Your task to perform on an android device: change the clock display to digital Image 0: 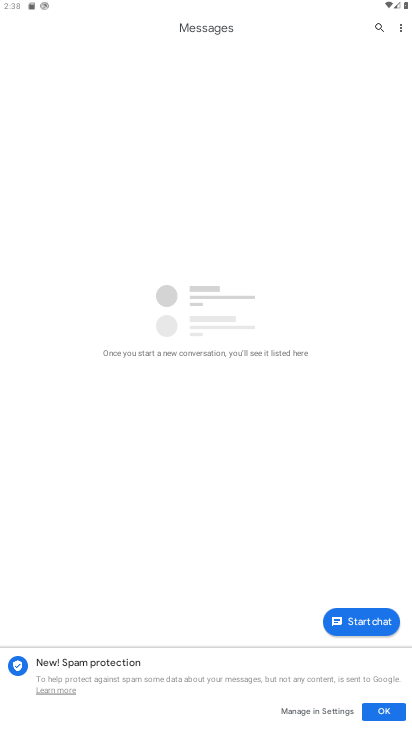
Step 0: press home button
Your task to perform on an android device: change the clock display to digital Image 1: 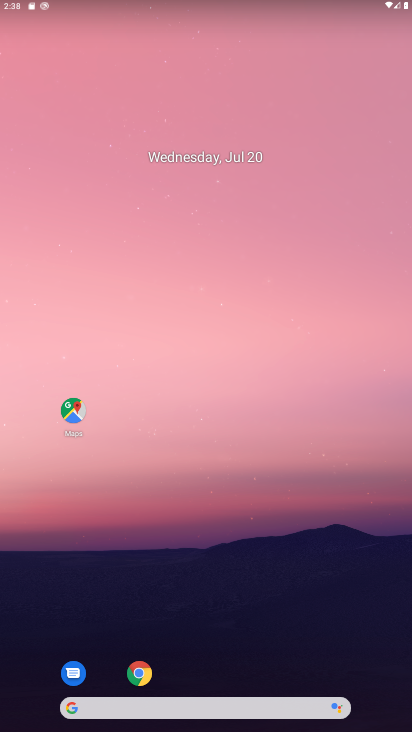
Step 1: drag from (217, 659) to (239, 43)
Your task to perform on an android device: change the clock display to digital Image 2: 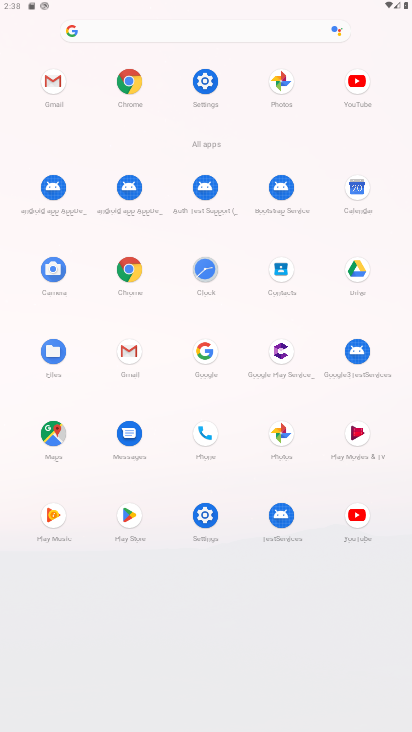
Step 2: click (207, 276)
Your task to perform on an android device: change the clock display to digital Image 3: 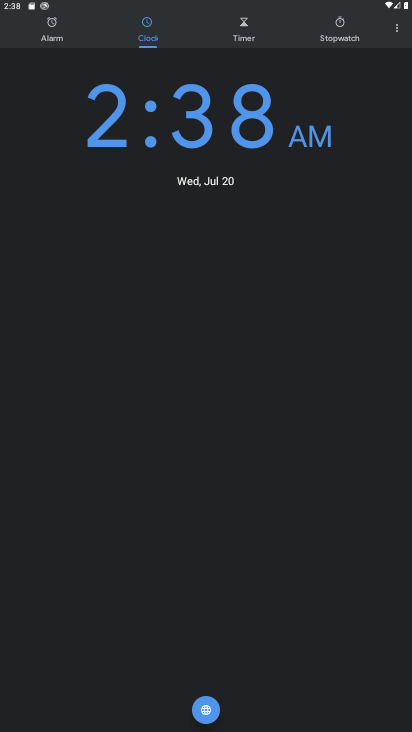
Step 3: click (393, 30)
Your task to perform on an android device: change the clock display to digital Image 4: 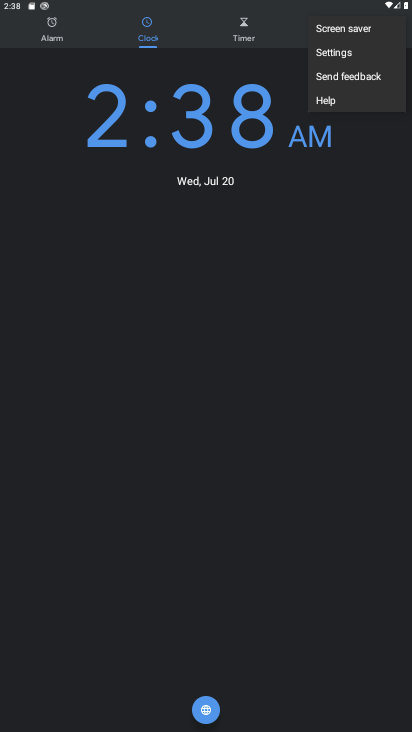
Step 4: click (341, 53)
Your task to perform on an android device: change the clock display to digital Image 5: 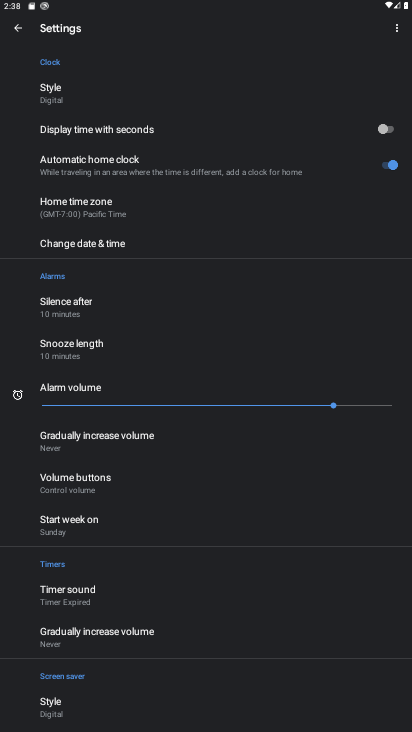
Step 5: click (62, 95)
Your task to perform on an android device: change the clock display to digital Image 6: 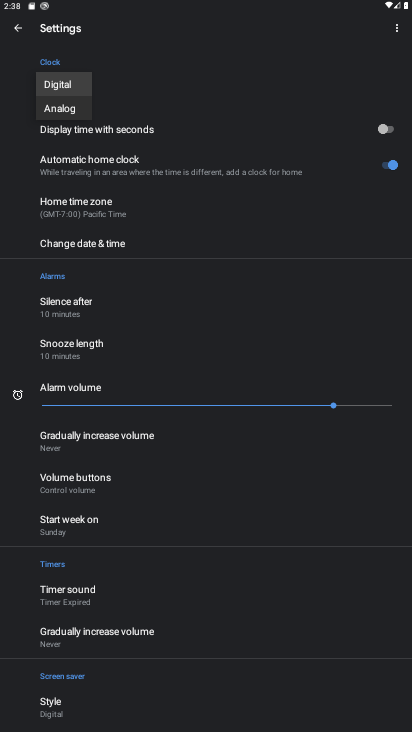
Step 6: task complete